Your task to perform on an android device: Open location settings Image 0: 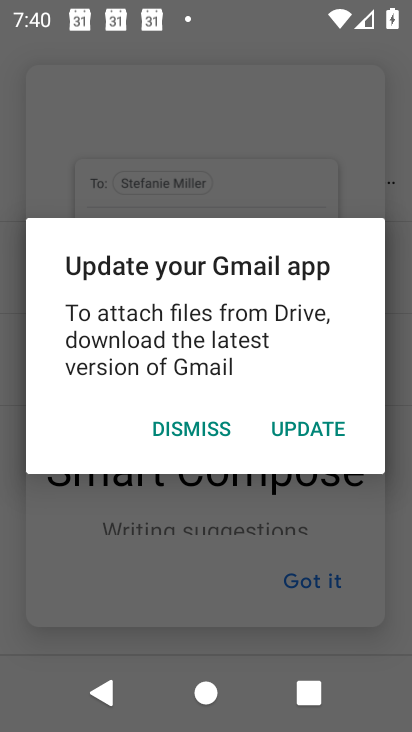
Step 0: press home button
Your task to perform on an android device: Open location settings Image 1: 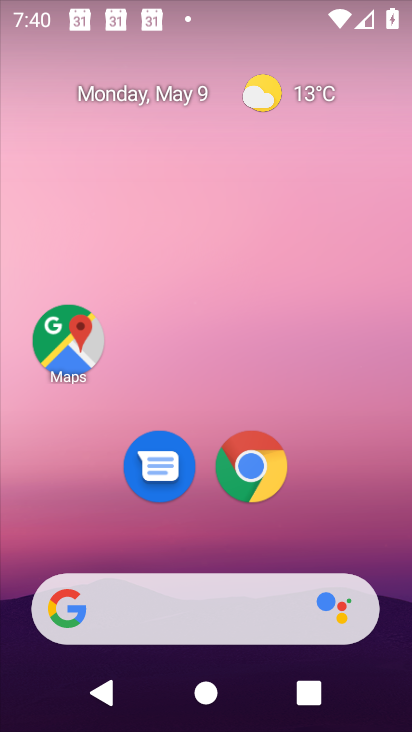
Step 1: drag from (353, 501) to (341, 247)
Your task to perform on an android device: Open location settings Image 2: 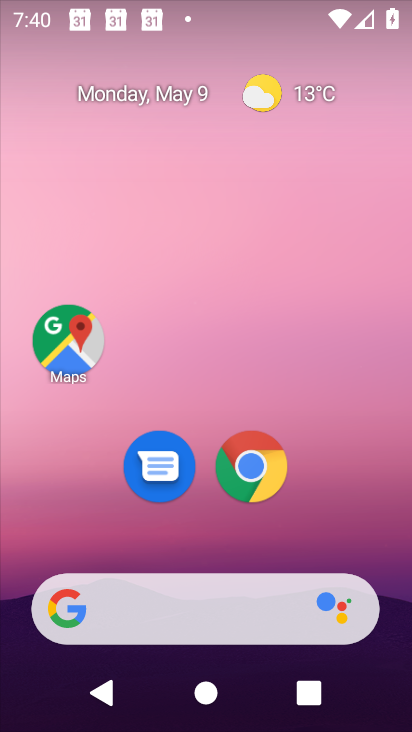
Step 2: drag from (351, 498) to (351, 269)
Your task to perform on an android device: Open location settings Image 3: 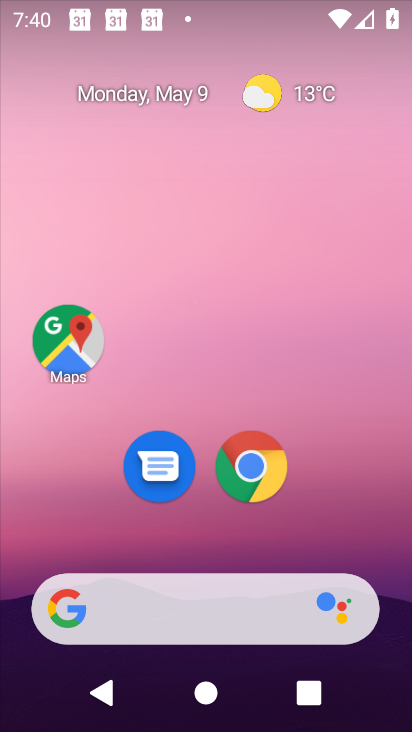
Step 3: drag from (338, 539) to (329, 261)
Your task to perform on an android device: Open location settings Image 4: 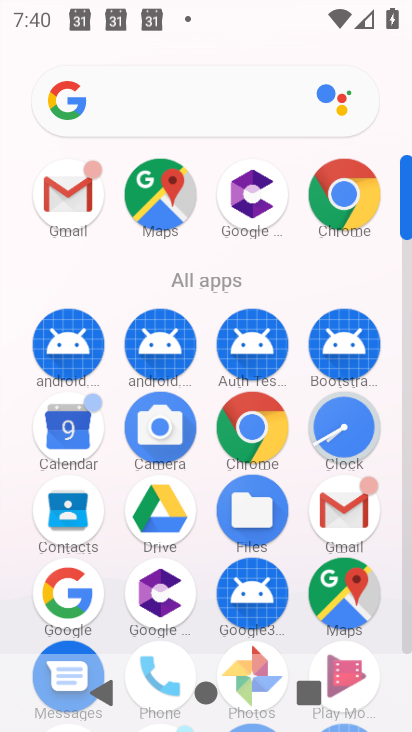
Step 4: drag from (202, 597) to (234, 213)
Your task to perform on an android device: Open location settings Image 5: 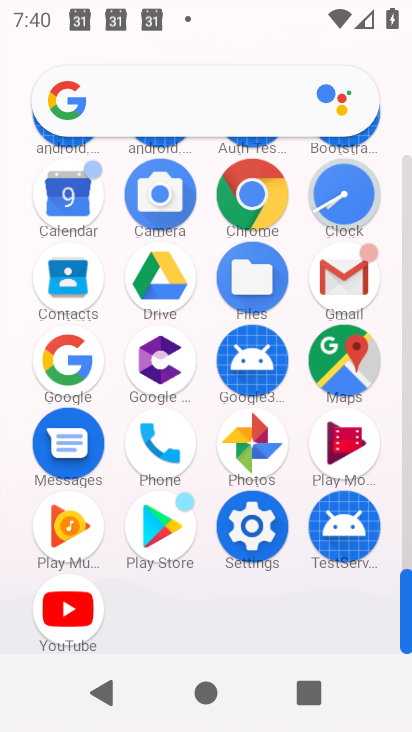
Step 5: click (237, 529)
Your task to perform on an android device: Open location settings Image 6: 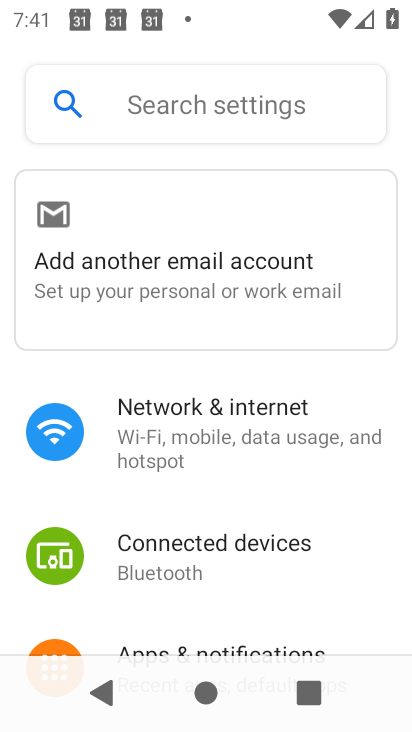
Step 6: drag from (375, 597) to (332, 9)
Your task to perform on an android device: Open location settings Image 7: 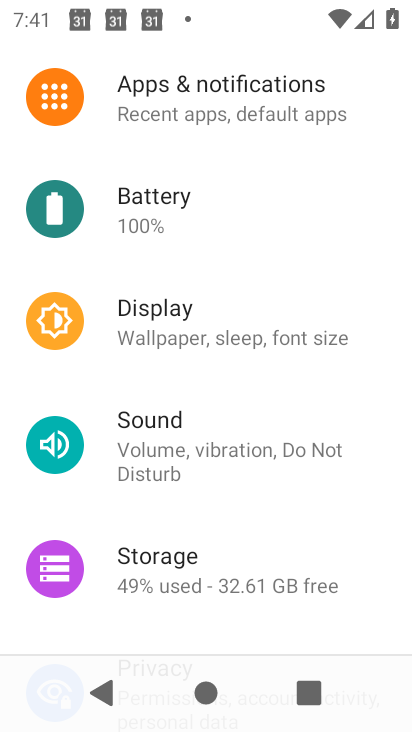
Step 7: drag from (327, 566) to (356, 160)
Your task to perform on an android device: Open location settings Image 8: 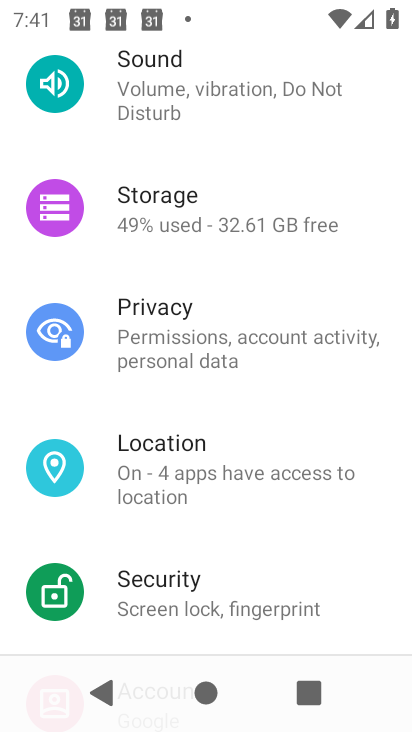
Step 8: click (264, 453)
Your task to perform on an android device: Open location settings Image 9: 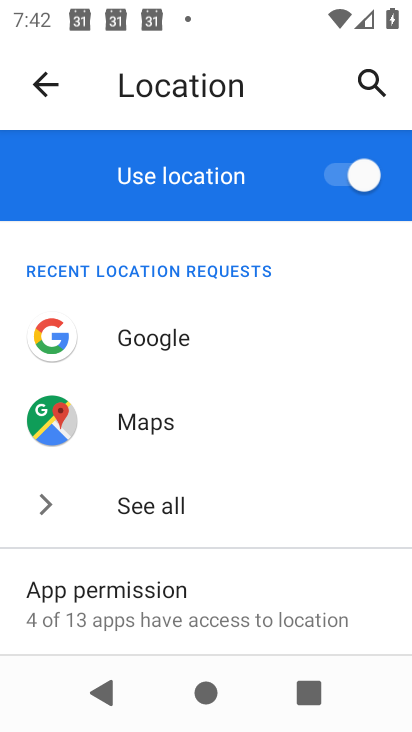
Step 9: task complete